Your task to perform on an android device: Show me popular games on the Play Store Image 0: 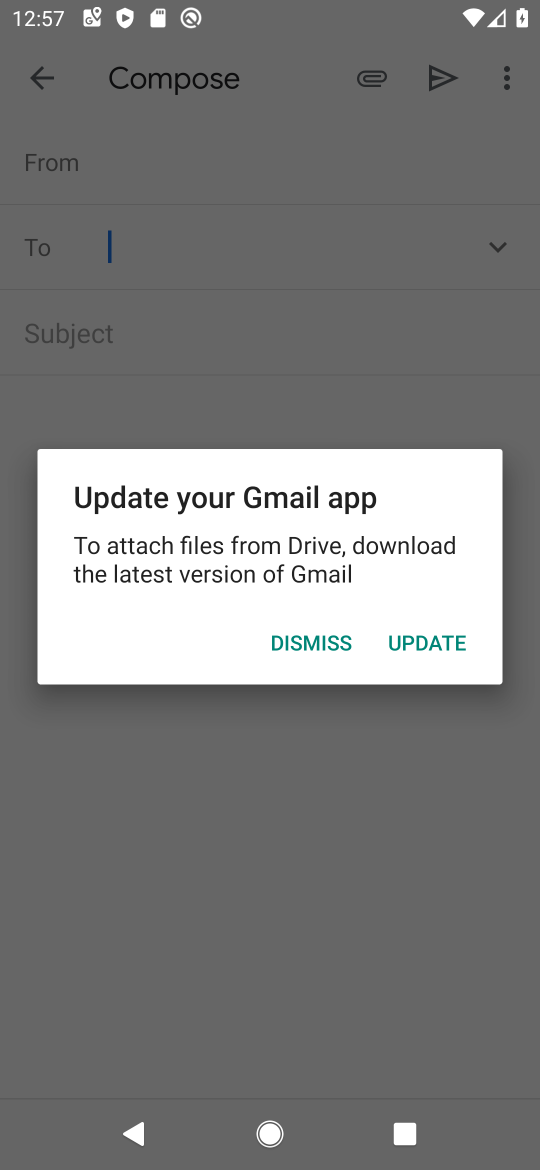
Step 0: press home button
Your task to perform on an android device: Show me popular games on the Play Store Image 1: 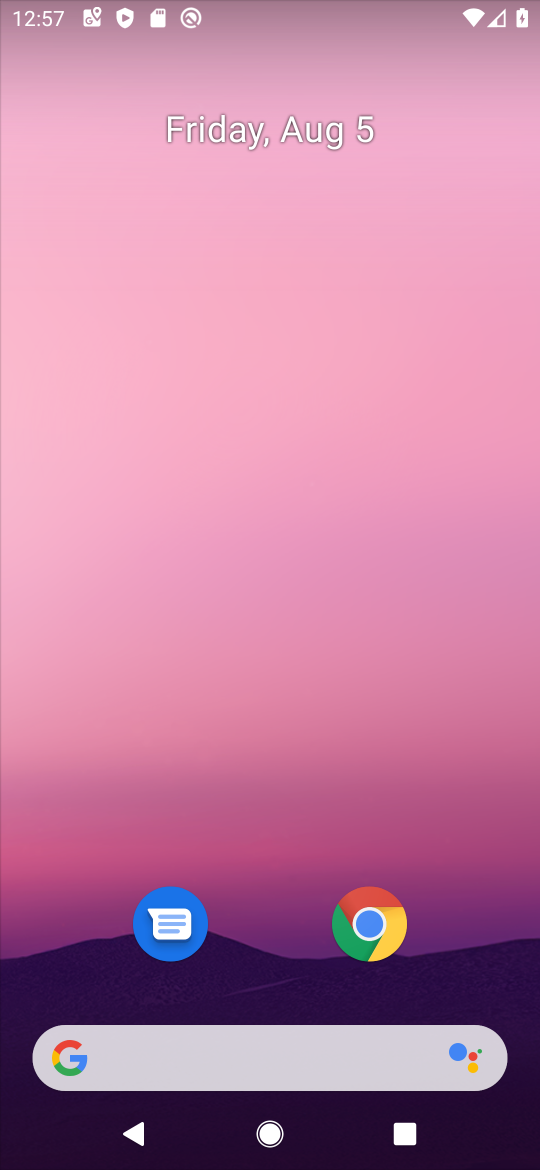
Step 1: drag from (254, 1054) to (319, 248)
Your task to perform on an android device: Show me popular games on the Play Store Image 2: 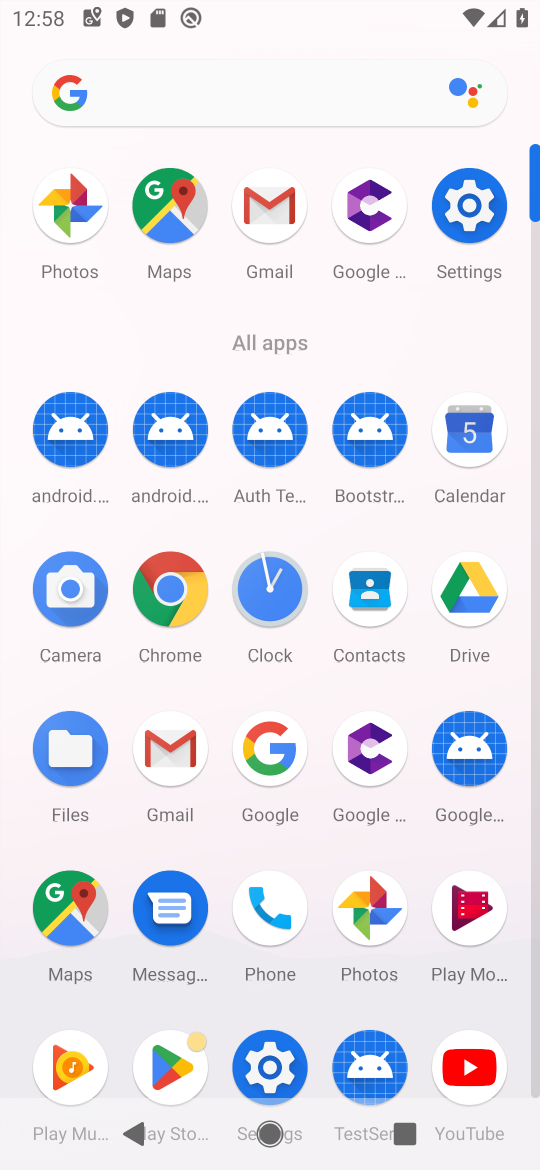
Step 2: click (176, 1061)
Your task to perform on an android device: Show me popular games on the Play Store Image 3: 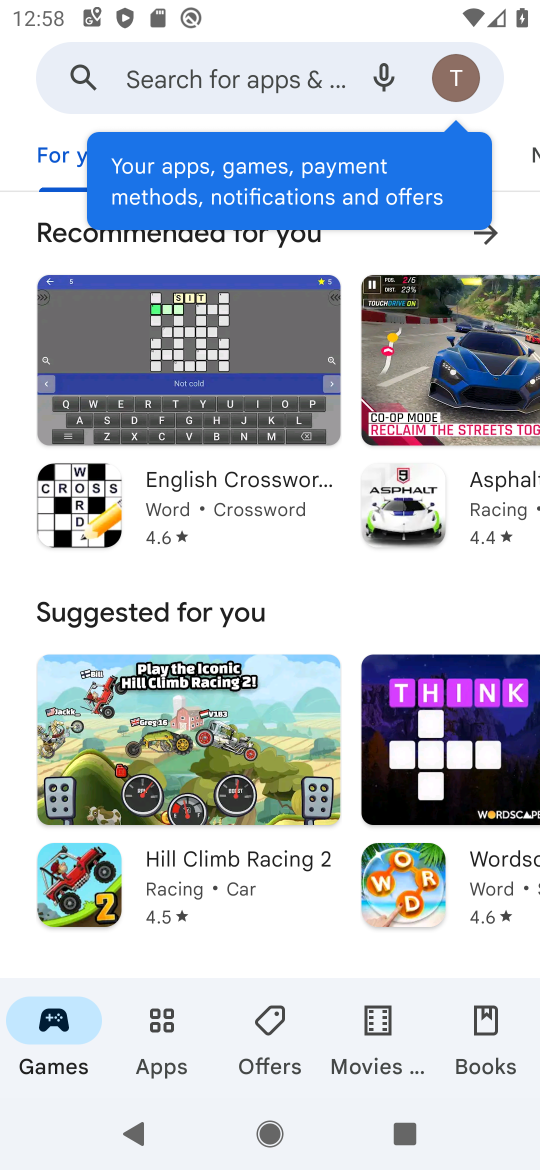
Step 3: click (247, 78)
Your task to perform on an android device: Show me popular games on the Play Store Image 4: 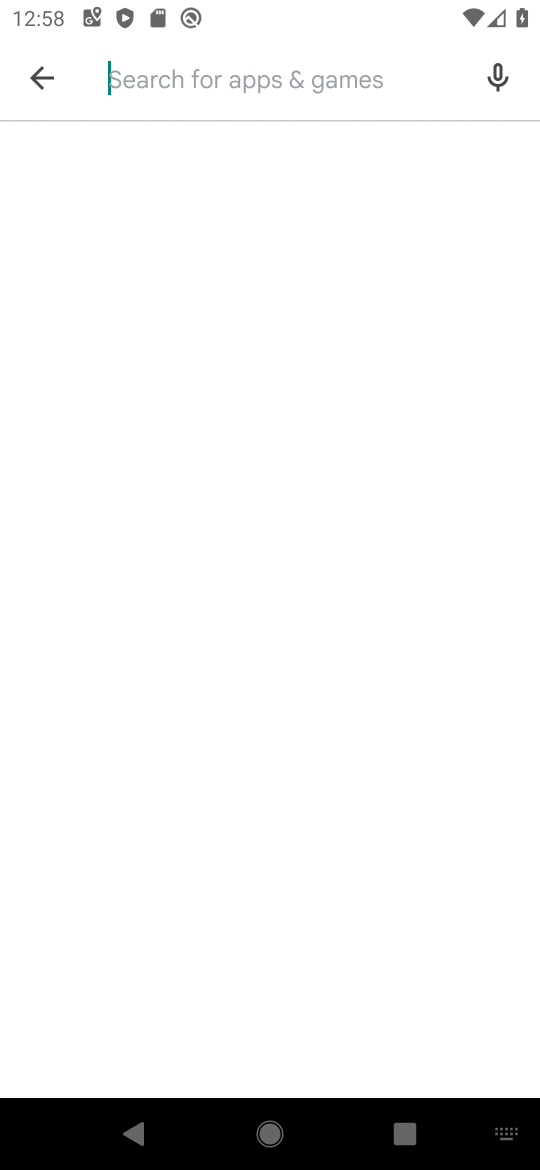
Step 4: type "popular games"
Your task to perform on an android device: Show me popular games on the Play Store Image 5: 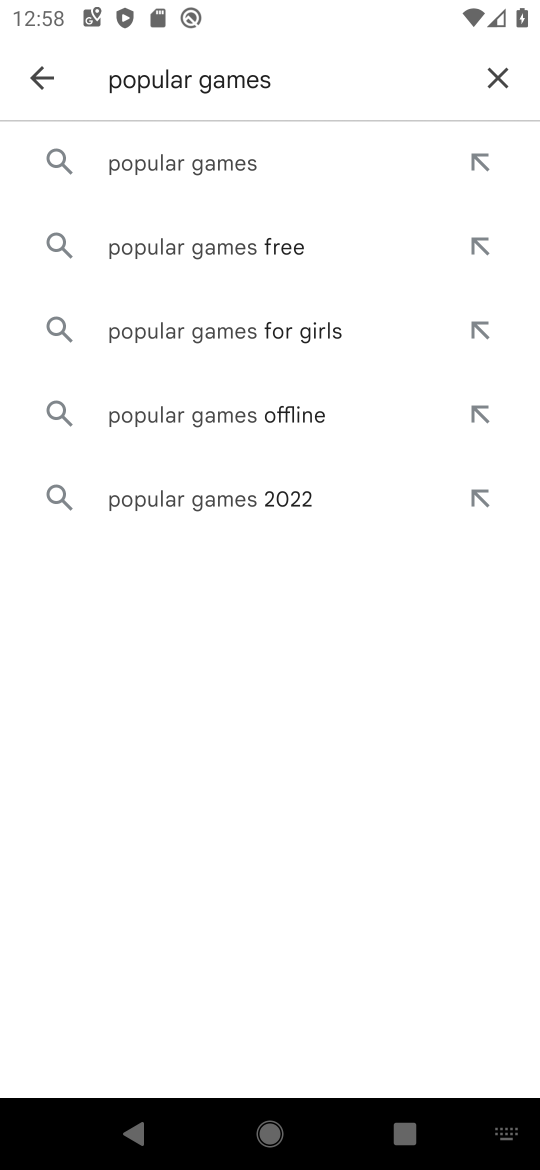
Step 5: click (215, 172)
Your task to perform on an android device: Show me popular games on the Play Store Image 6: 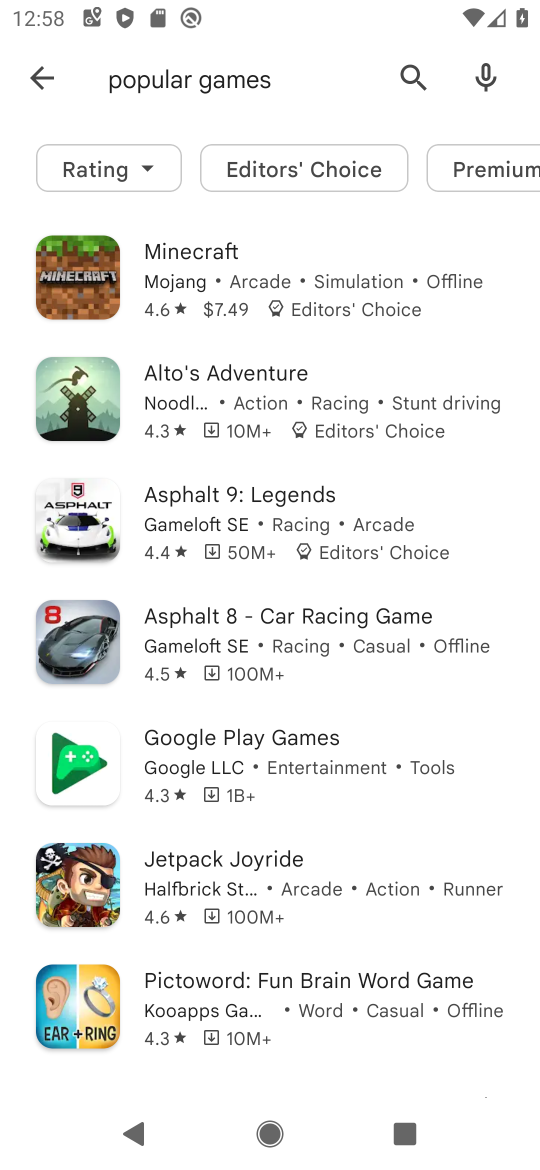
Step 6: task complete